Your task to perform on an android device: turn on wifi Image 0: 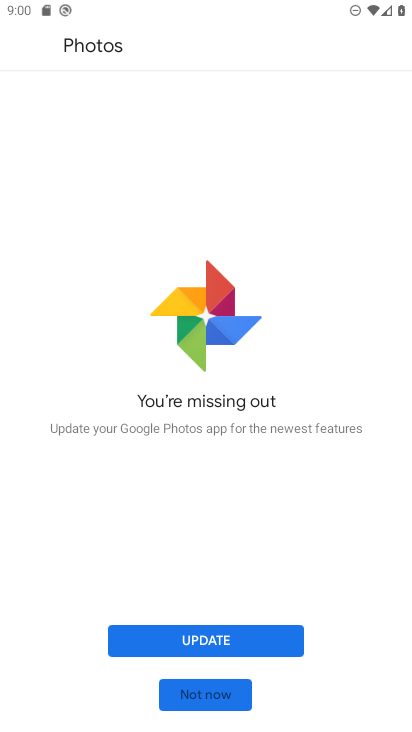
Step 0: press home button
Your task to perform on an android device: turn on wifi Image 1: 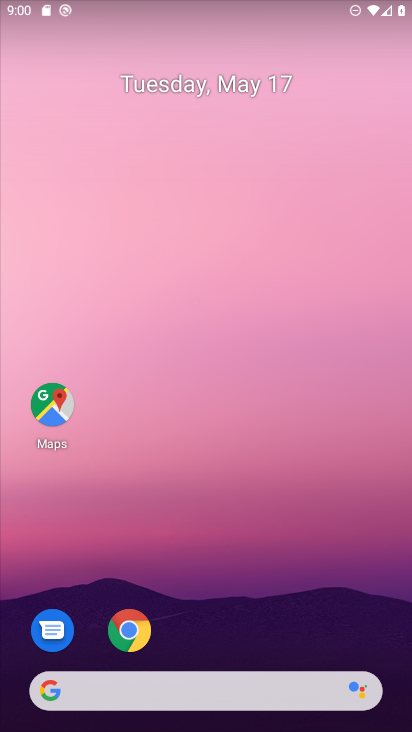
Step 1: drag from (363, 621) to (370, 77)
Your task to perform on an android device: turn on wifi Image 2: 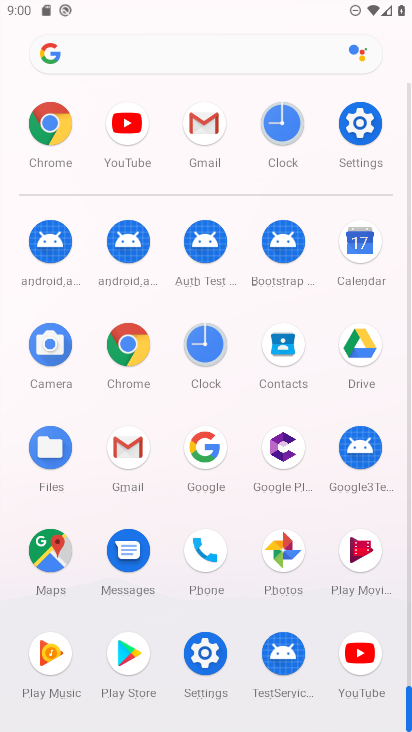
Step 2: click (369, 128)
Your task to perform on an android device: turn on wifi Image 3: 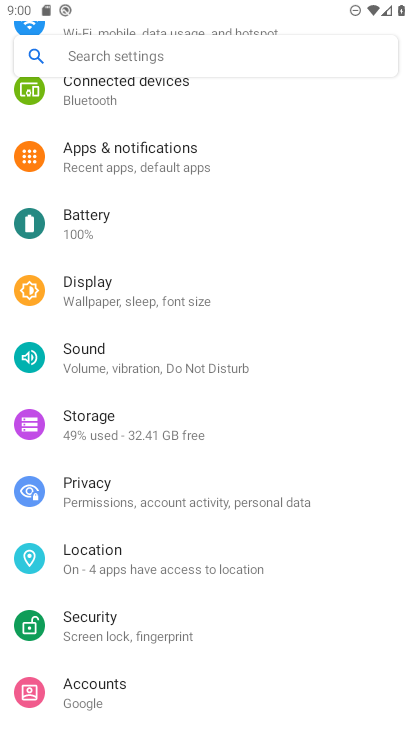
Step 3: drag from (339, 617) to (340, 390)
Your task to perform on an android device: turn on wifi Image 4: 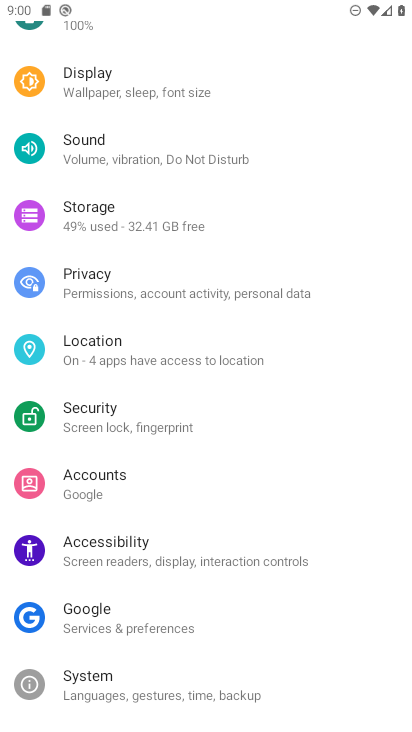
Step 4: drag from (339, 623) to (352, 412)
Your task to perform on an android device: turn on wifi Image 5: 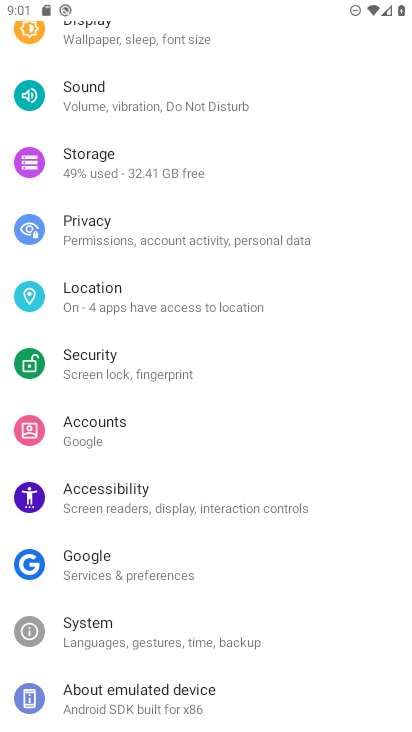
Step 5: drag from (329, 582) to (336, 411)
Your task to perform on an android device: turn on wifi Image 6: 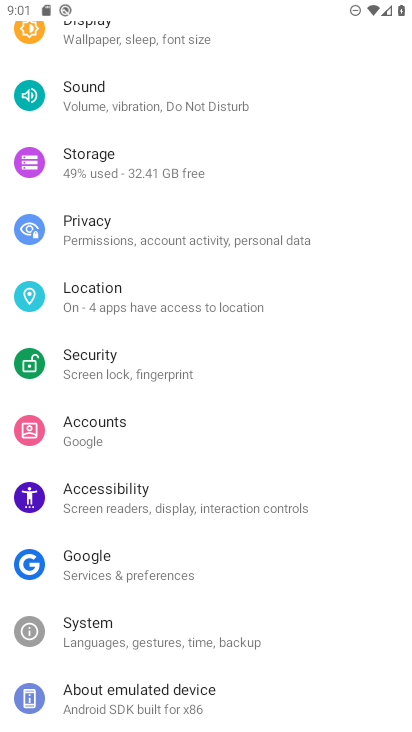
Step 6: drag from (346, 248) to (346, 415)
Your task to perform on an android device: turn on wifi Image 7: 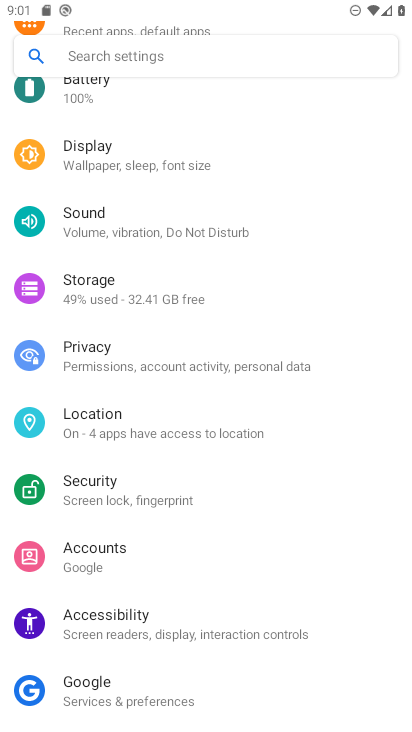
Step 7: drag from (363, 256) to (349, 468)
Your task to perform on an android device: turn on wifi Image 8: 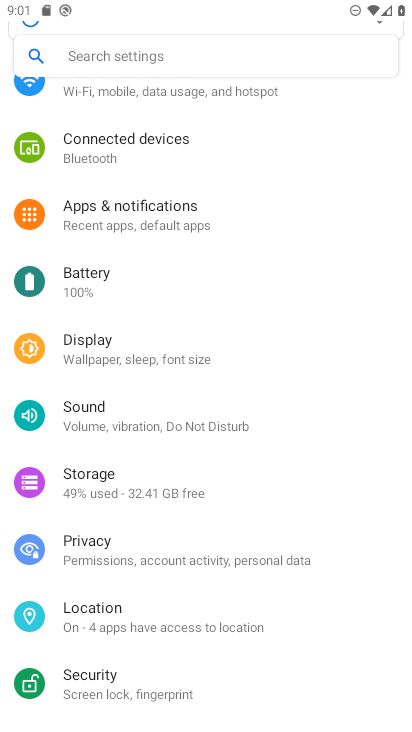
Step 8: drag from (333, 245) to (333, 298)
Your task to perform on an android device: turn on wifi Image 9: 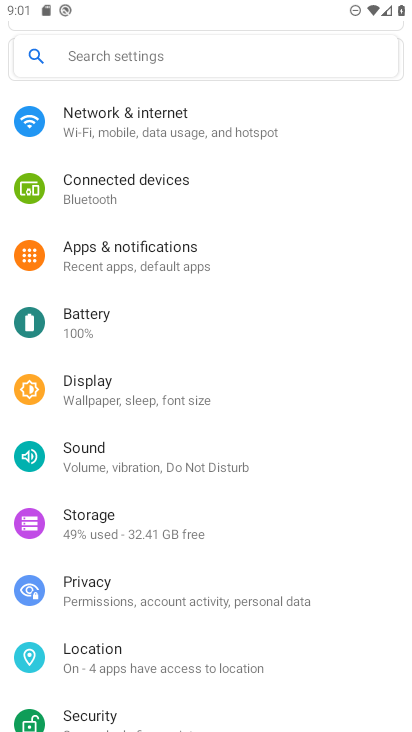
Step 9: drag from (333, 213) to (324, 383)
Your task to perform on an android device: turn on wifi Image 10: 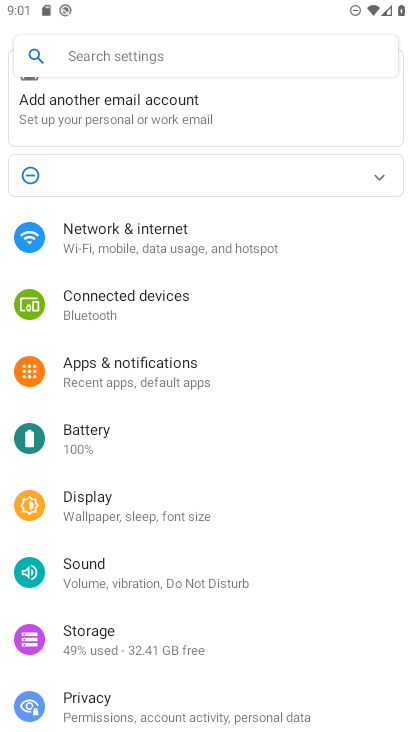
Step 10: click (238, 239)
Your task to perform on an android device: turn on wifi Image 11: 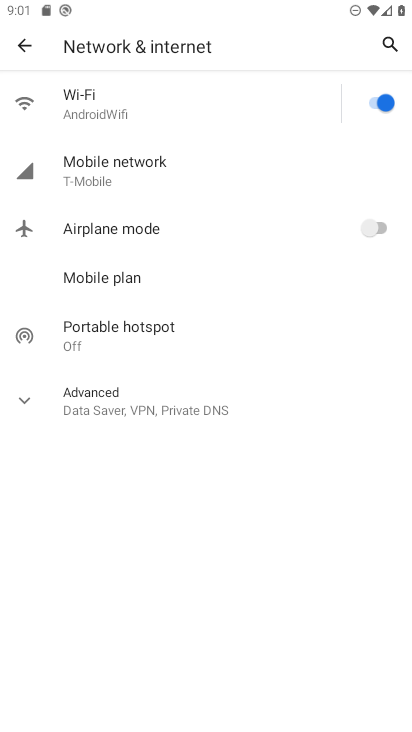
Step 11: task complete